Your task to perform on an android device: Show me popular videos on Youtube Image 0: 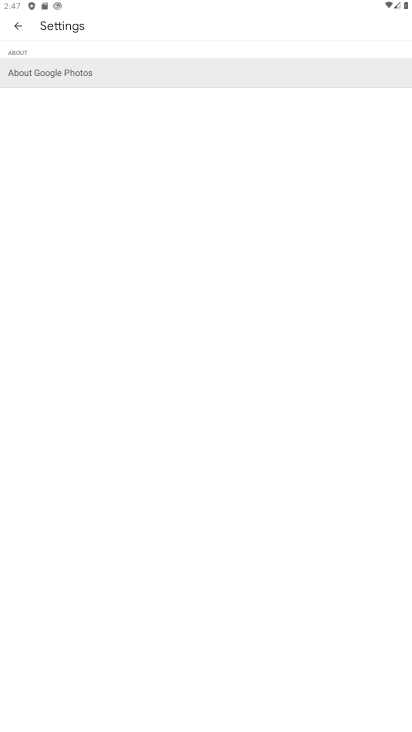
Step 0: press home button
Your task to perform on an android device: Show me popular videos on Youtube Image 1: 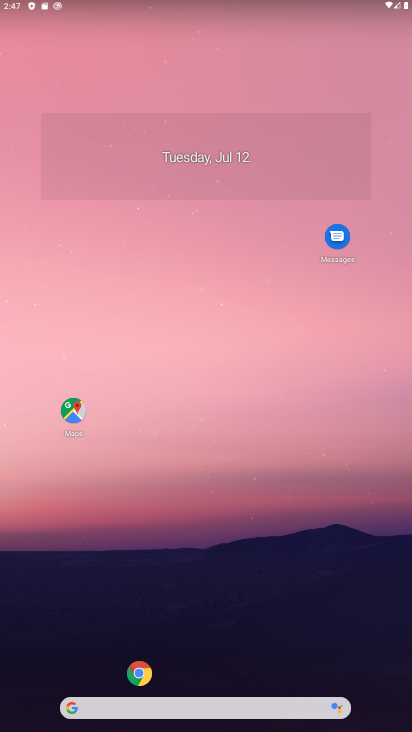
Step 1: drag from (213, 278) to (366, 20)
Your task to perform on an android device: Show me popular videos on Youtube Image 2: 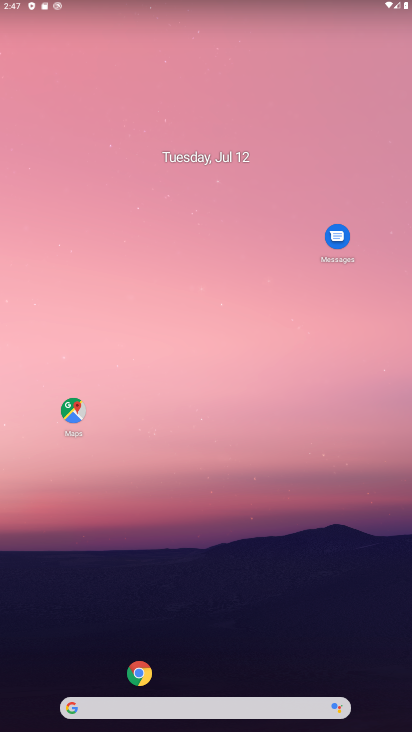
Step 2: drag from (13, 699) to (297, 69)
Your task to perform on an android device: Show me popular videos on Youtube Image 3: 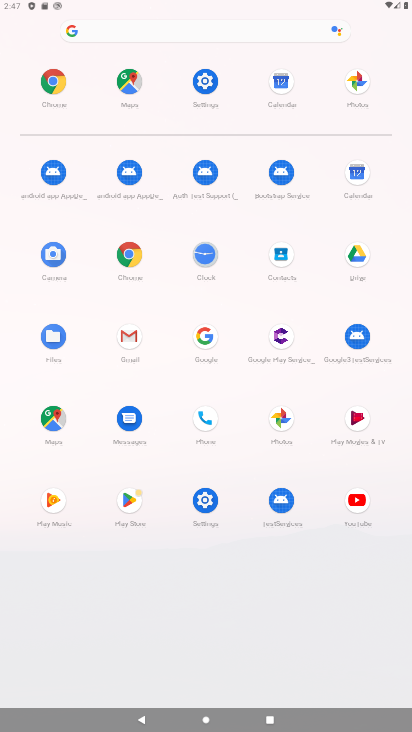
Step 3: click (348, 503)
Your task to perform on an android device: Show me popular videos on Youtube Image 4: 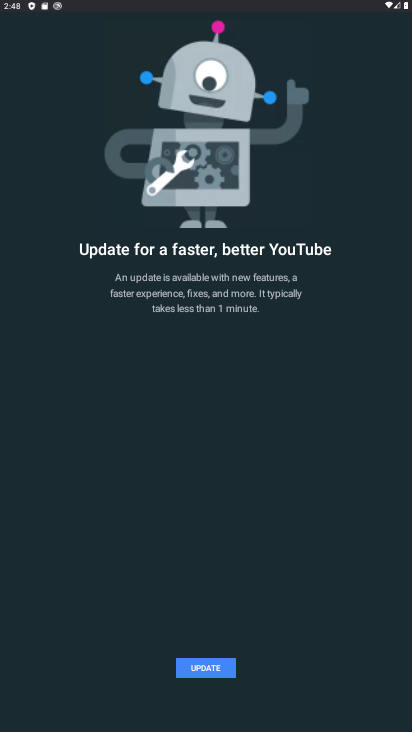
Step 4: click (207, 668)
Your task to perform on an android device: Show me popular videos on Youtube Image 5: 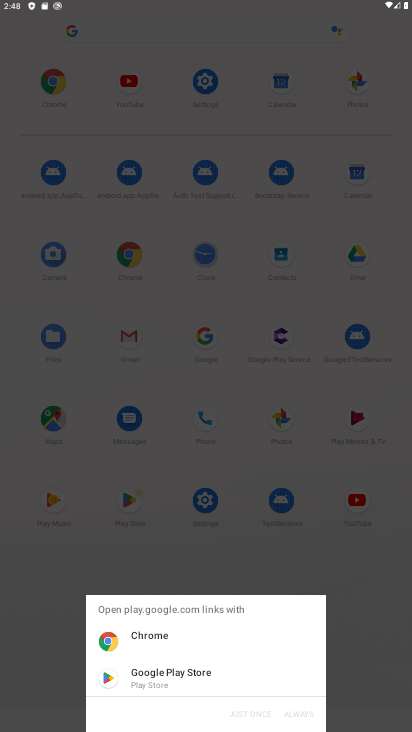
Step 5: click (184, 683)
Your task to perform on an android device: Show me popular videos on Youtube Image 6: 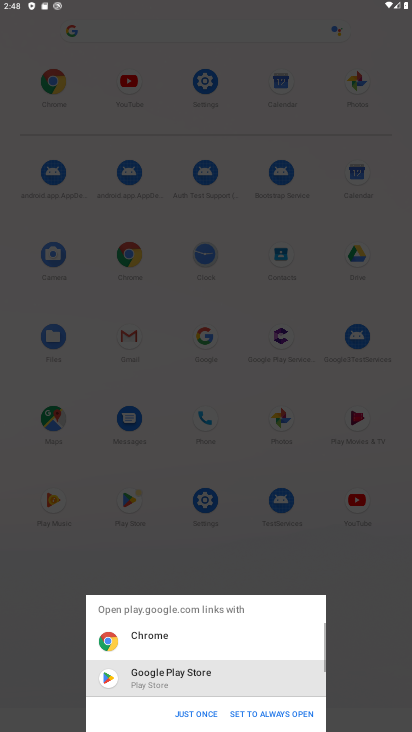
Step 6: click (195, 710)
Your task to perform on an android device: Show me popular videos on Youtube Image 7: 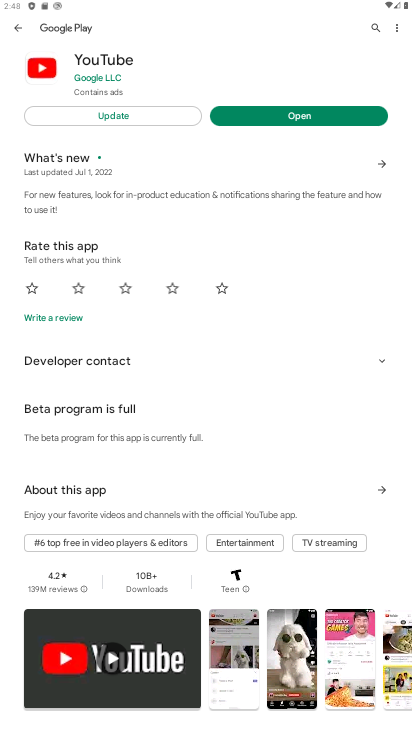
Step 7: click (284, 111)
Your task to perform on an android device: Show me popular videos on Youtube Image 8: 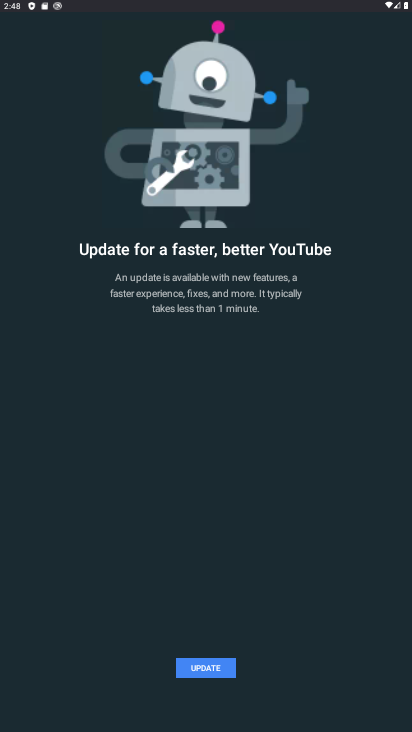
Step 8: task complete